Your task to perform on an android device: toggle improve location accuracy Image 0: 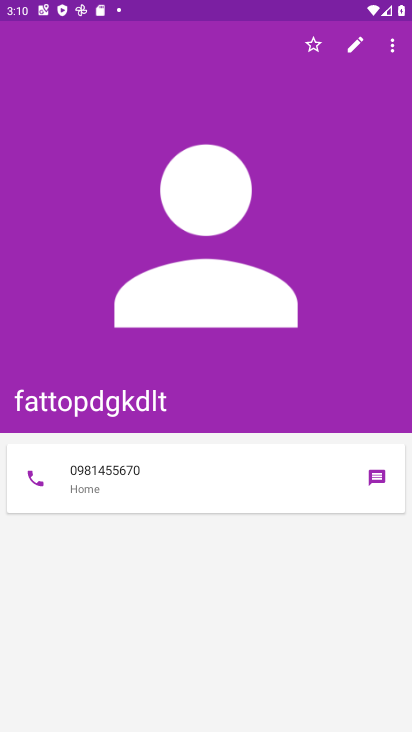
Step 0: press home button
Your task to perform on an android device: toggle improve location accuracy Image 1: 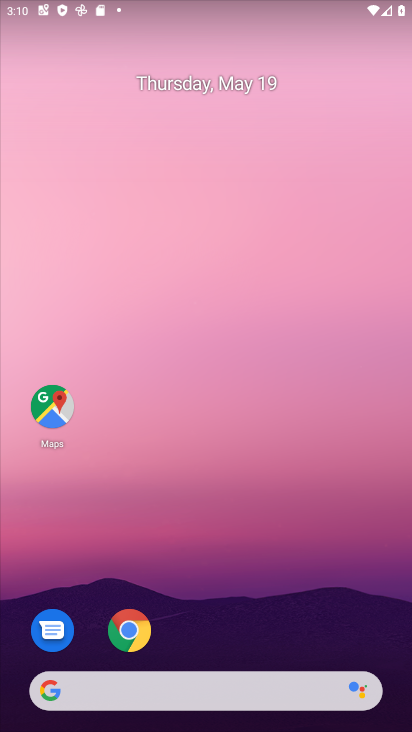
Step 1: drag from (351, 633) to (320, 41)
Your task to perform on an android device: toggle improve location accuracy Image 2: 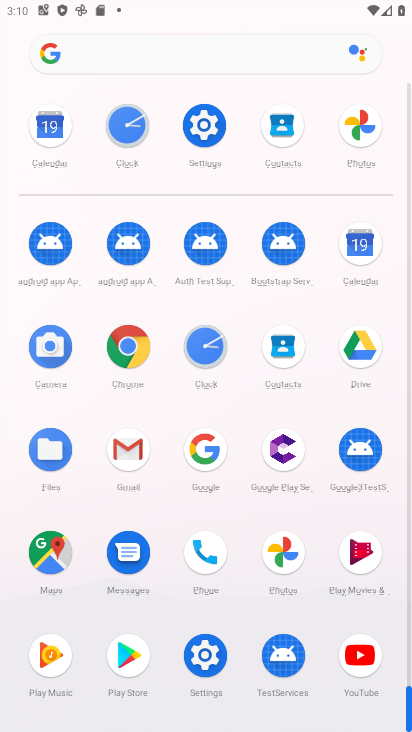
Step 2: click (204, 652)
Your task to perform on an android device: toggle improve location accuracy Image 3: 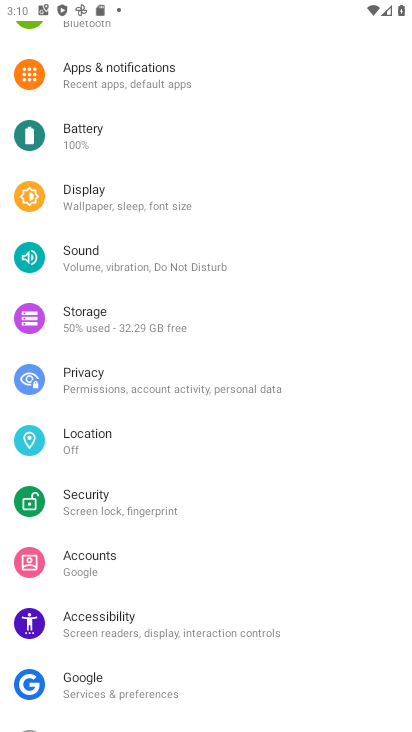
Step 3: click (85, 432)
Your task to perform on an android device: toggle improve location accuracy Image 4: 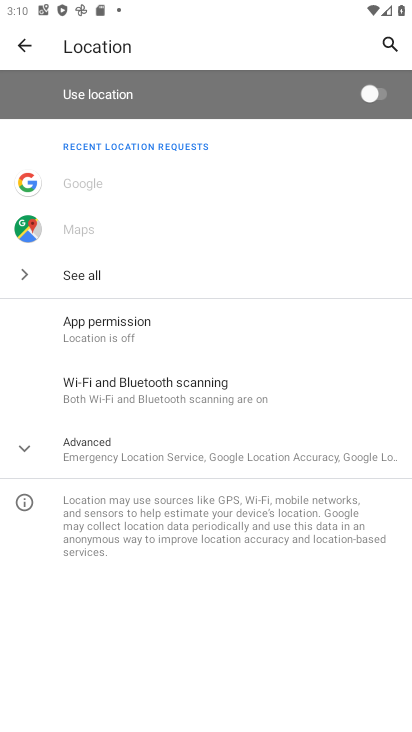
Step 4: click (61, 442)
Your task to perform on an android device: toggle improve location accuracy Image 5: 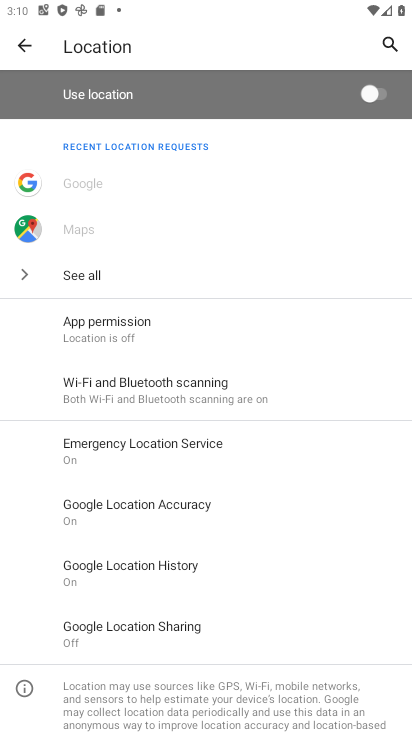
Step 5: click (134, 500)
Your task to perform on an android device: toggle improve location accuracy Image 6: 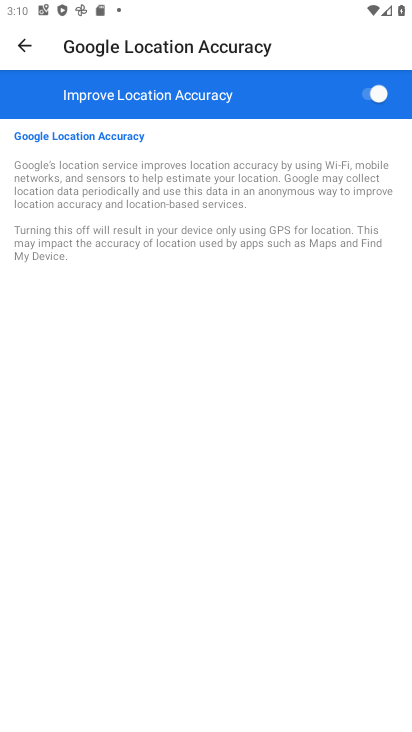
Step 6: click (365, 87)
Your task to perform on an android device: toggle improve location accuracy Image 7: 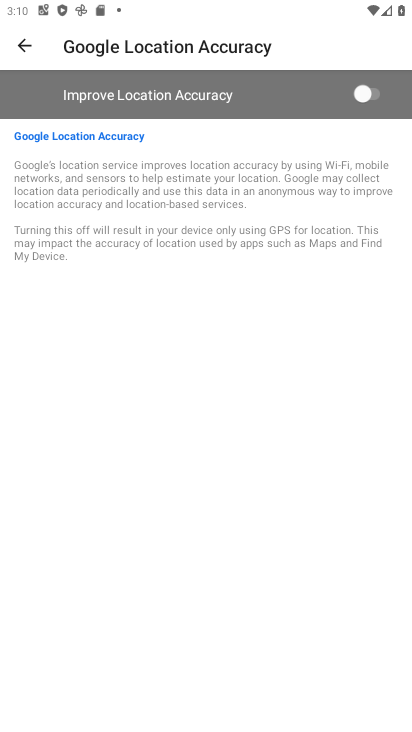
Step 7: task complete